Your task to perform on an android device: Open display settings Image 0: 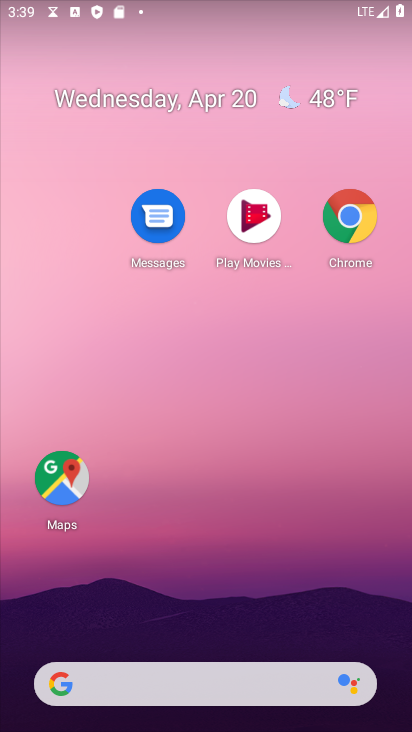
Step 0: drag from (292, 579) to (358, 46)
Your task to perform on an android device: Open display settings Image 1: 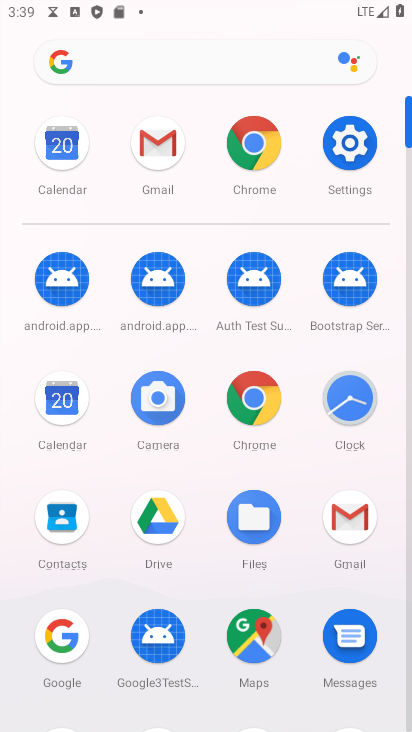
Step 1: click (352, 159)
Your task to perform on an android device: Open display settings Image 2: 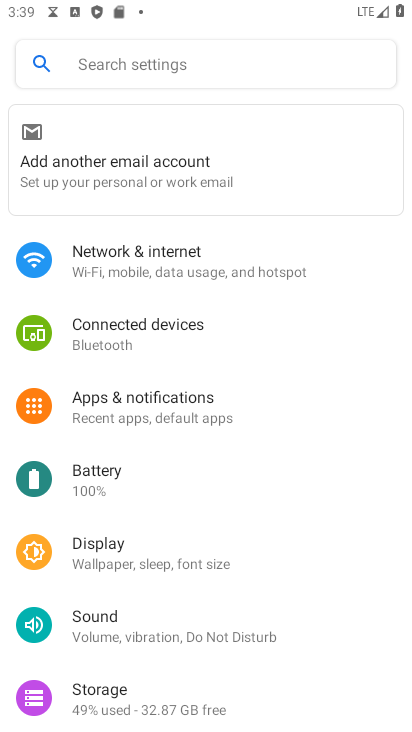
Step 2: click (140, 553)
Your task to perform on an android device: Open display settings Image 3: 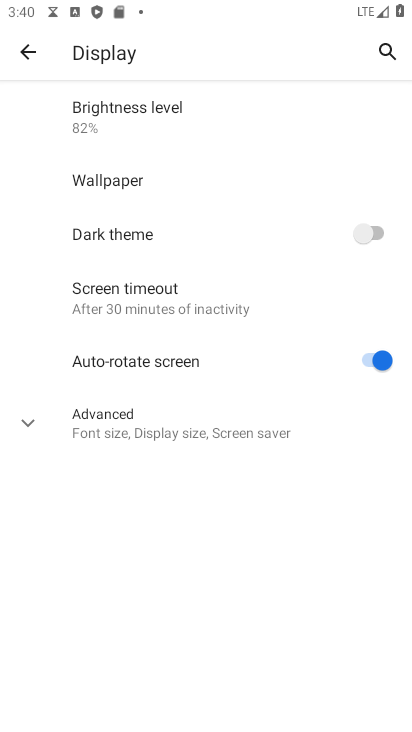
Step 3: task complete